Your task to perform on an android device: Search for good pizza restaurants on Maps Image 0: 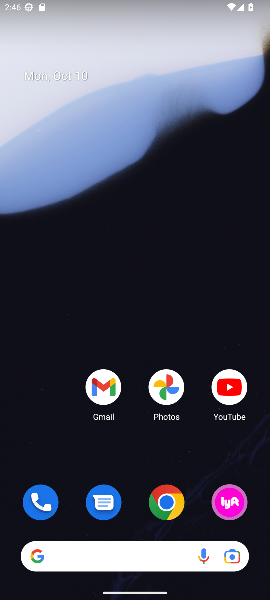
Step 0: drag from (157, 473) to (209, 42)
Your task to perform on an android device: Search for good pizza restaurants on Maps Image 1: 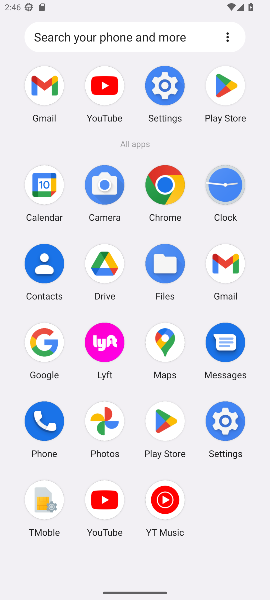
Step 1: click (169, 358)
Your task to perform on an android device: Search for good pizza restaurants on Maps Image 2: 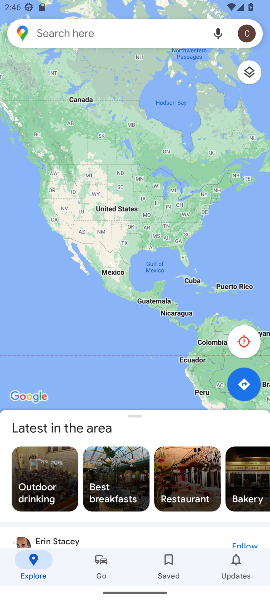
Step 2: click (130, 30)
Your task to perform on an android device: Search for good pizza restaurants on Maps Image 3: 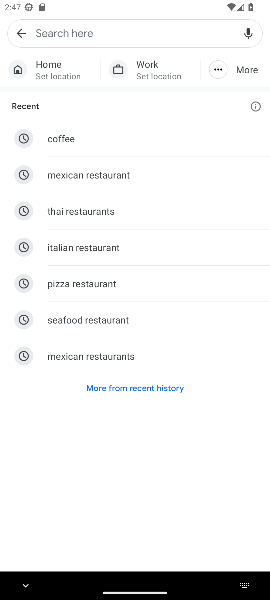
Step 3: type "good pizza restaurants"
Your task to perform on an android device: Search for good pizza restaurants on Maps Image 4: 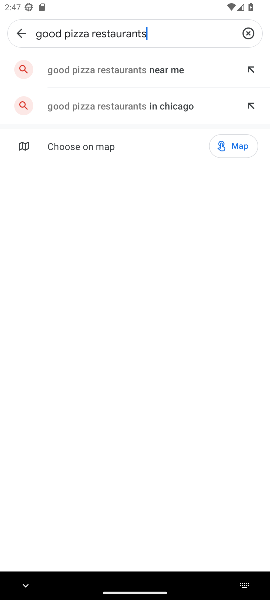
Step 4: click (136, 74)
Your task to perform on an android device: Search for good pizza restaurants on Maps Image 5: 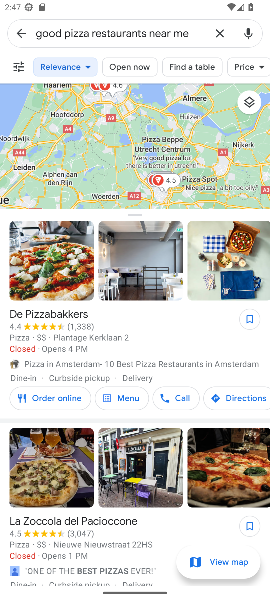
Step 5: task complete